Your task to perform on an android device: Go to Amazon Image 0: 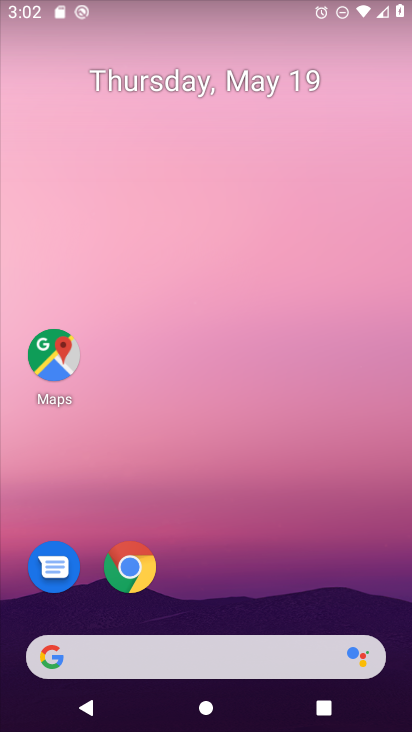
Step 0: click (138, 565)
Your task to perform on an android device: Go to Amazon Image 1: 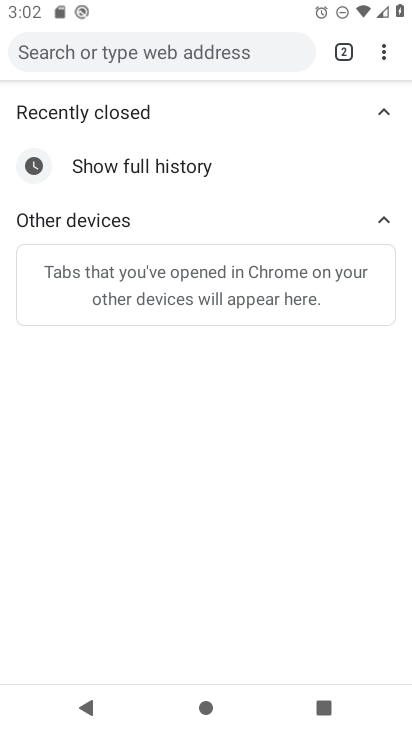
Step 1: click (379, 49)
Your task to perform on an android device: Go to Amazon Image 2: 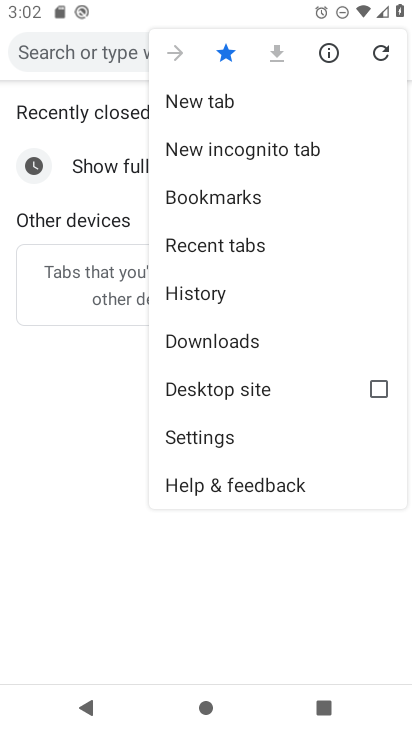
Step 2: click (301, 103)
Your task to perform on an android device: Go to Amazon Image 3: 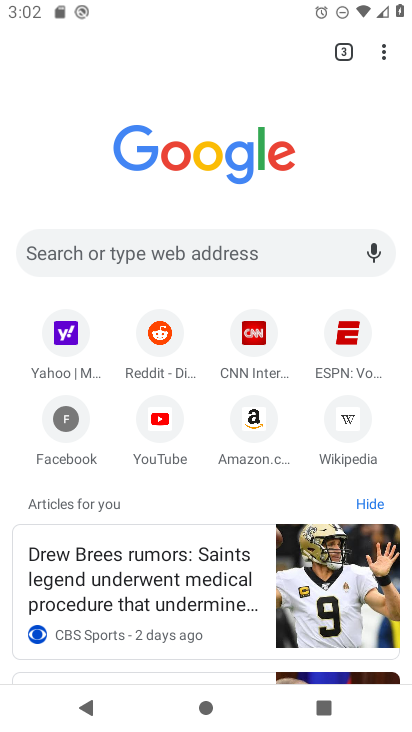
Step 3: click (257, 412)
Your task to perform on an android device: Go to Amazon Image 4: 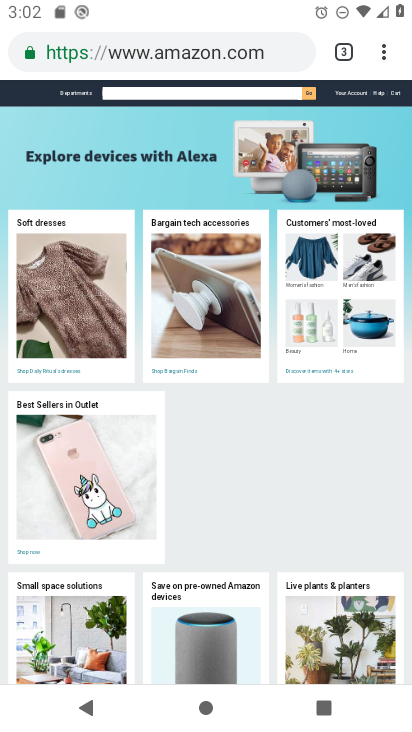
Step 4: task complete